Your task to perform on an android device: Search for Mexican restaurants on Maps Image 0: 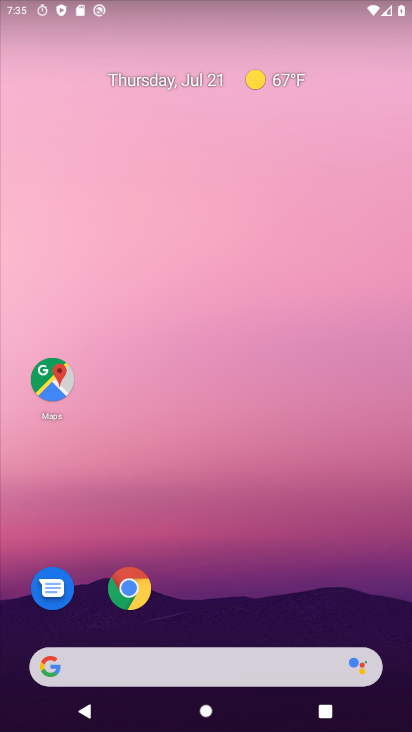
Step 0: click (42, 386)
Your task to perform on an android device: Search for Mexican restaurants on Maps Image 1: 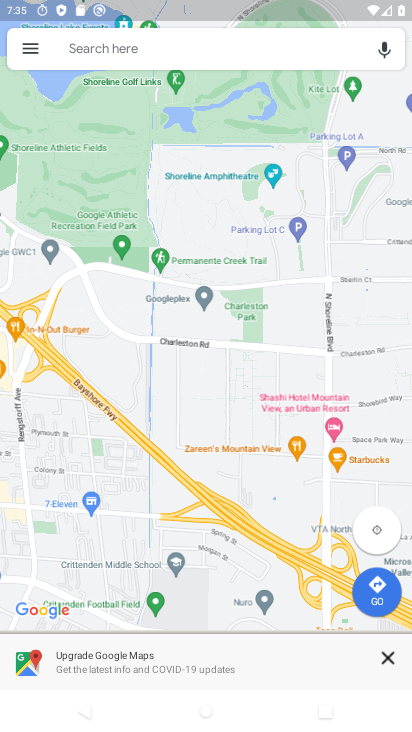
Step 1: click (97, 53)
Your task to perform on an android device: Search for Mexican restaurants on Maps Image 2: 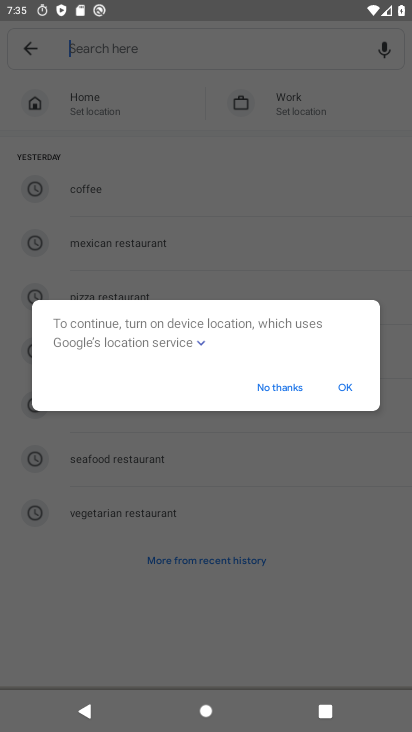
Step 2: drag from (345, 396) to (286, 396)
Your task to perform on an android device: Search for Mexican restaurants on Maps Image 3: 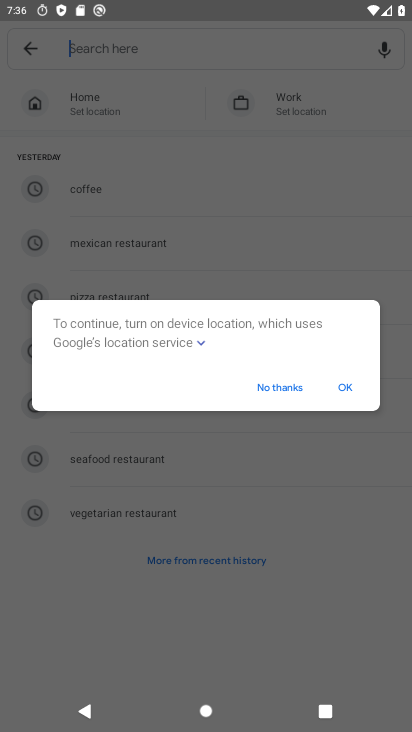
Step 3: click (353, 384)
Your task to perform on an android device: Search for Mexican restaurants on Maps Image 4: 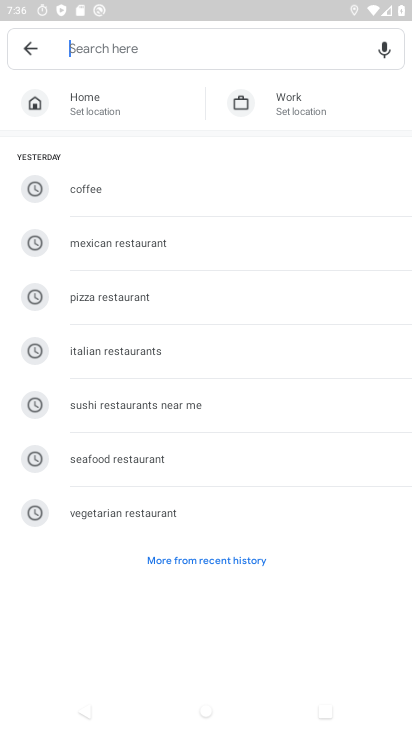
Step 4: click (124, 246)
Your task to perform on an android device: Search for Mexican restaurants on Maps Image 5: 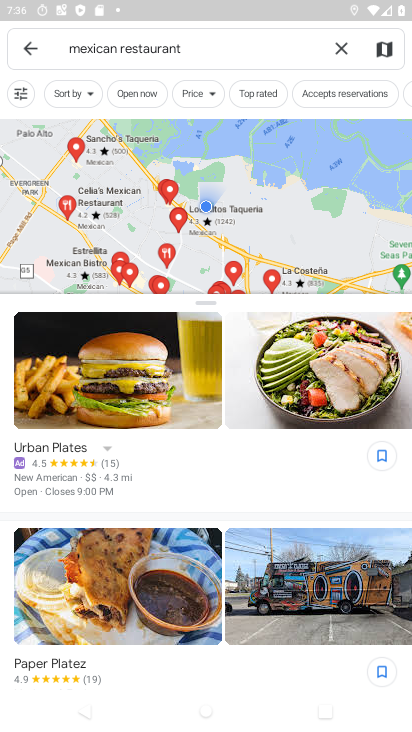
Step 5: task complete